Your task to perform on an android device: turn on the 12-hour format for clock Image 0: 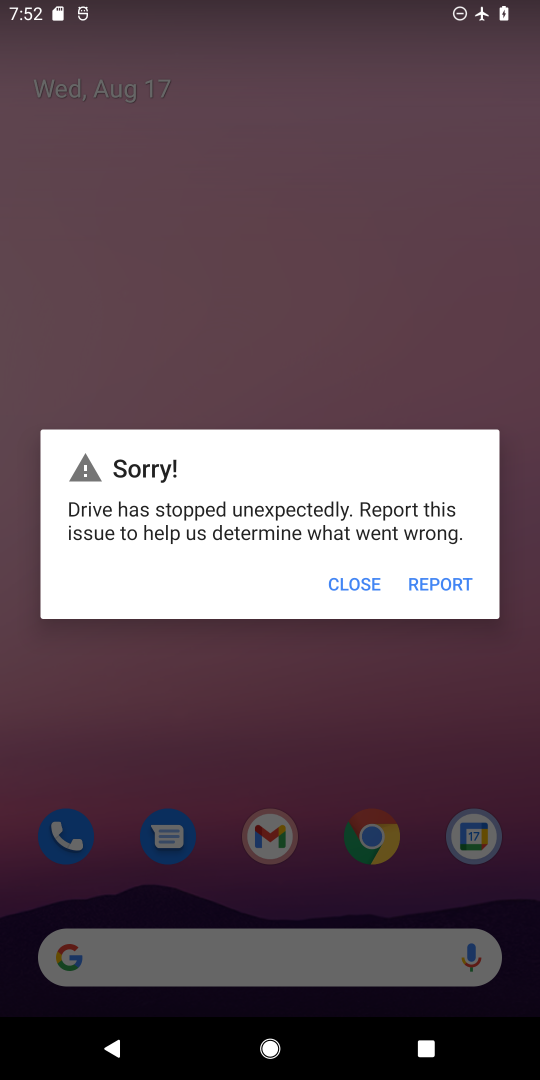
Step 0: press home button
Your task to perform on an android device: turn on the 12-hour format for clock Image 1: 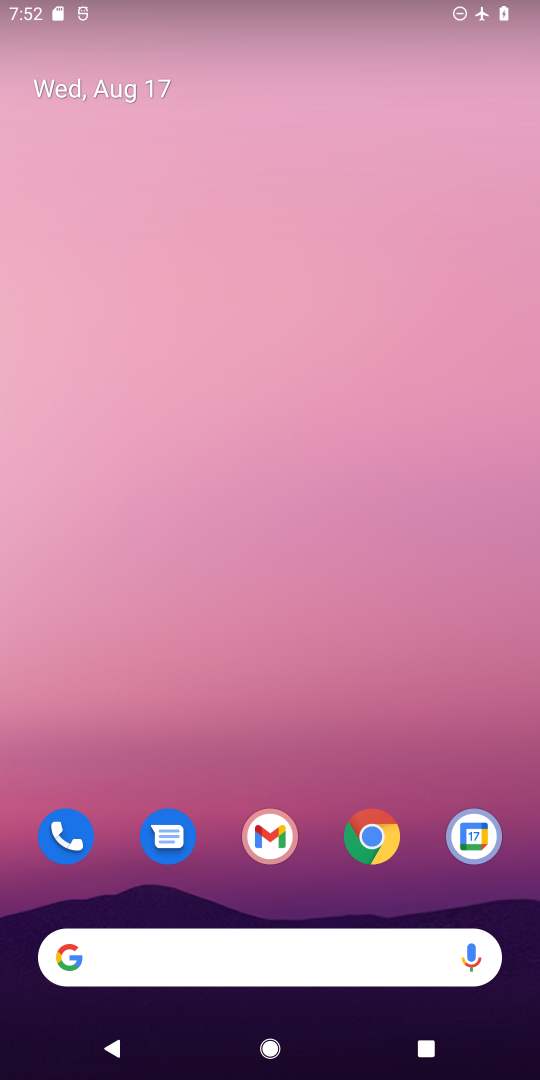
Step 1: drag from (287, 335) to (290, 280)
Your task to perform on an android device: turn on the 12-hour format for clock Image 2: 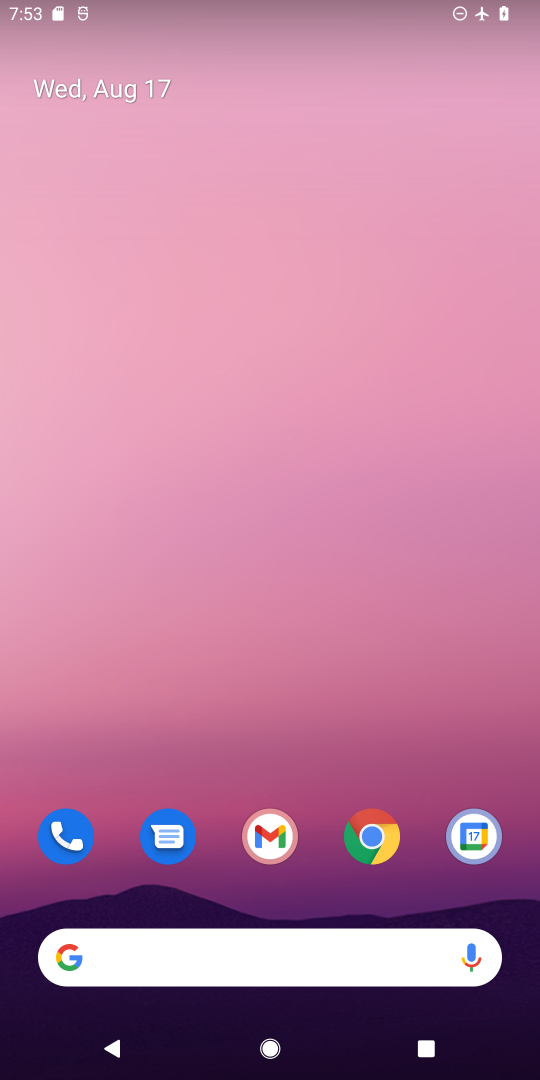
Step 2: drag from (275, 912) to (302, 206)
Your task to perform on an android device: turn on the 12-hour format for clock Image 3: 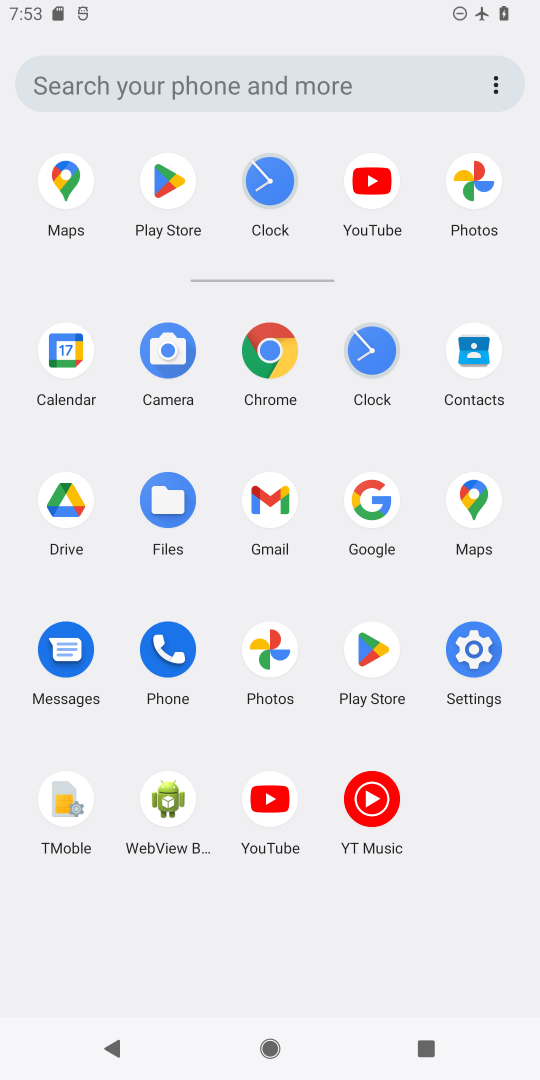
Step 3: click (358, 346)
Your task to perform on an android device: turn on the 12-hour format for clock Image 4: 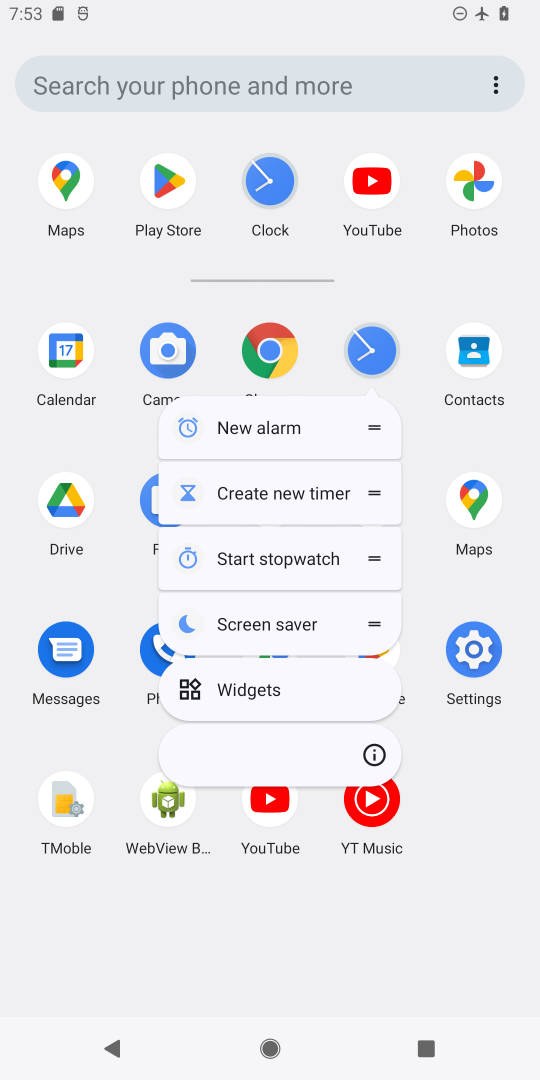
Step 4: click (369, 348)
Your task to perform on an android device: turn on the 12-hour format for clock Image 5: 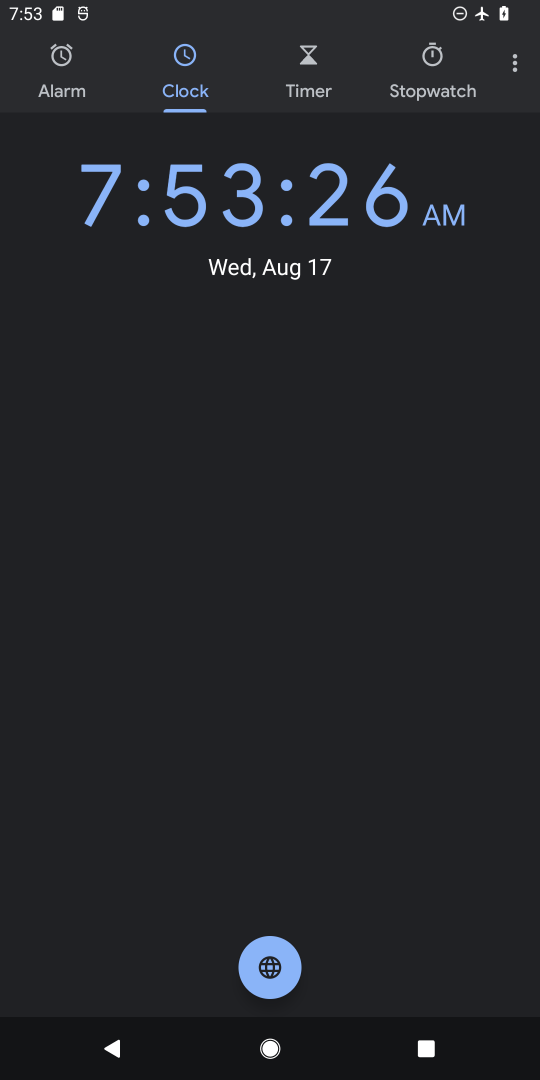
Step 5: click (517, 62)
Your task to perform on an android device: turn on the 12-hour format for clock Image 6: 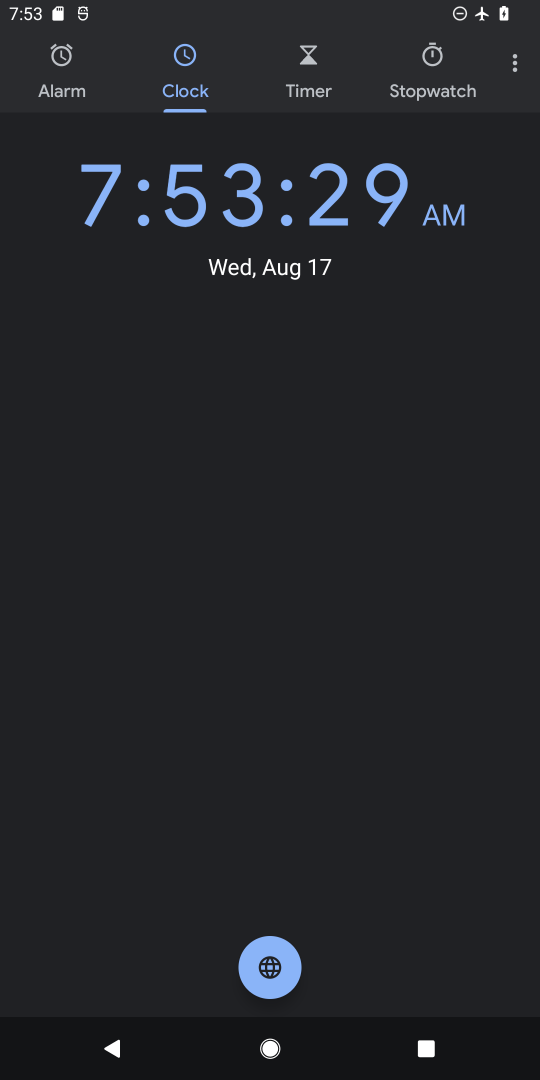
Step 6: click (532, 57)
Your task to perform on an android device: turn on the 12-hour format for clock Image 7: 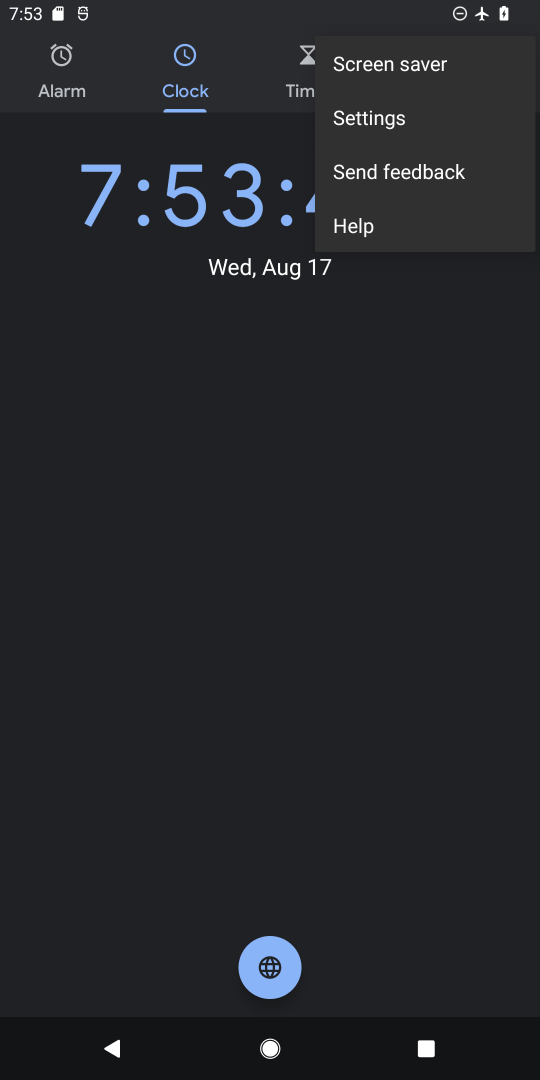
Step 7: click (366, 121)
Your task to perform on an android device: turn on the 12-hour format for clock Image 8: 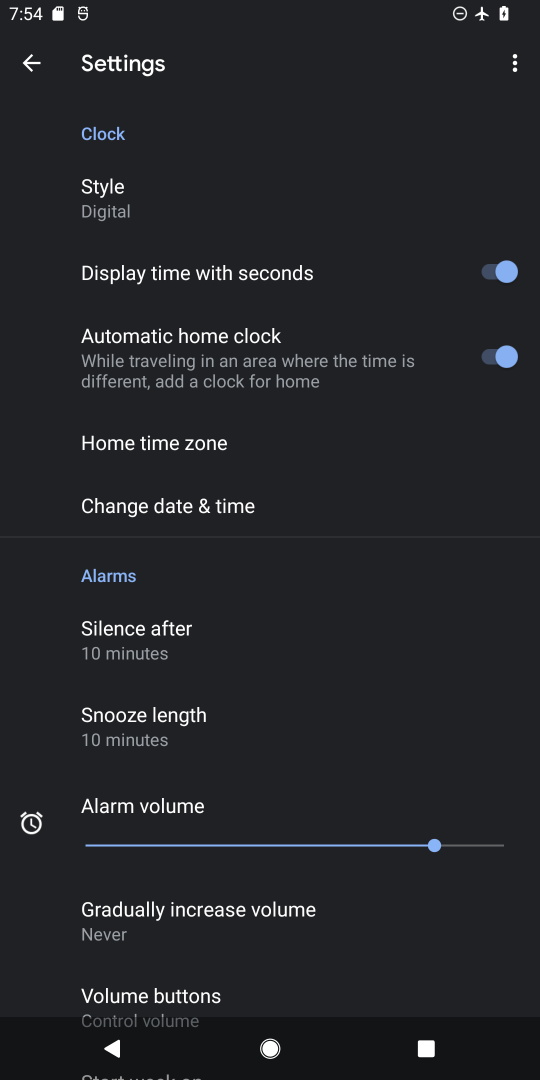
Step 8: drag from (281, 892) to (355, 515)
Your task to perform on an android device: turn on the 12-hour format for clock Image 9: 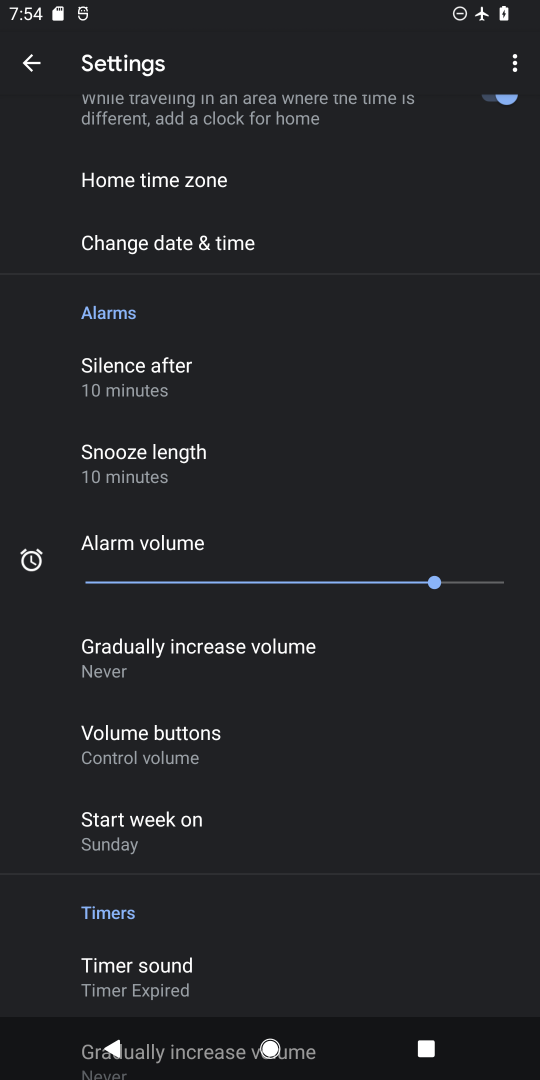
Step 9: click (276, 227)
Your task to perform on an android device: turn on the 12-hour format for clock Image 10: 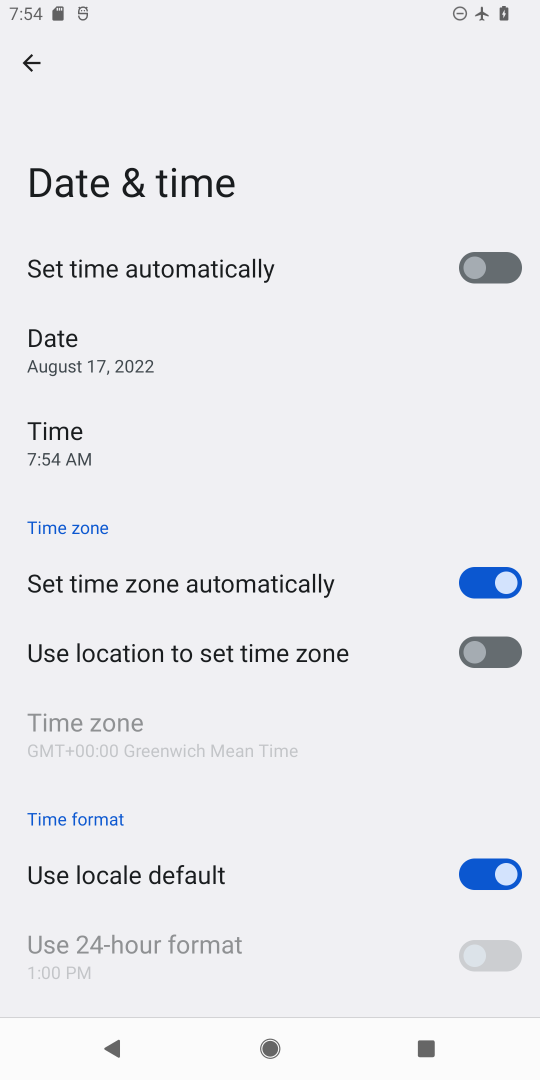
Step 10: click (478, 862)
Your task to perform on an android device: turn on the 12-hour format for clock Image 11: 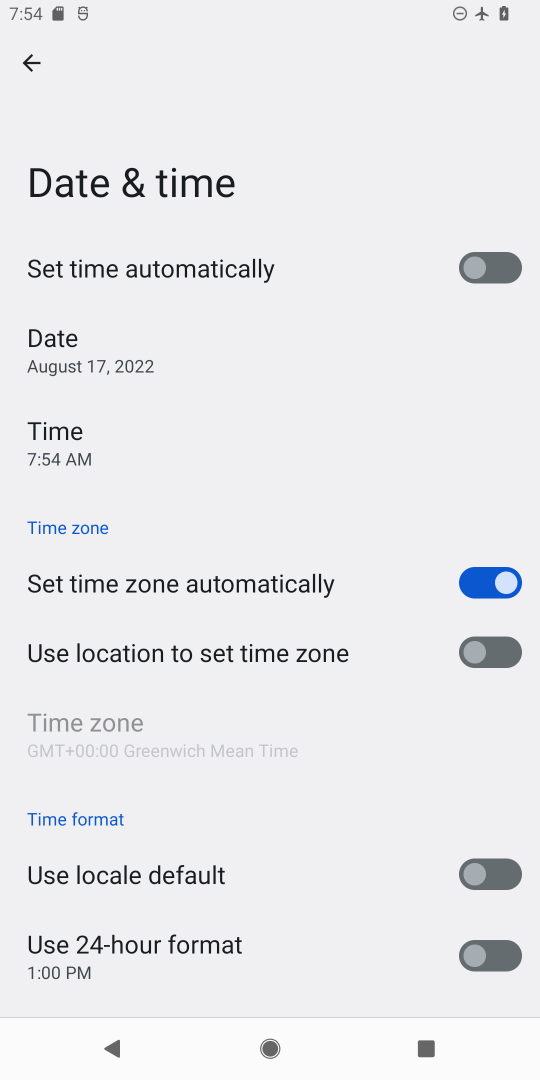
Step 11: click (493, 967)
Your task to perform on an android device: turn on the 12-hour format for clock Image 12: 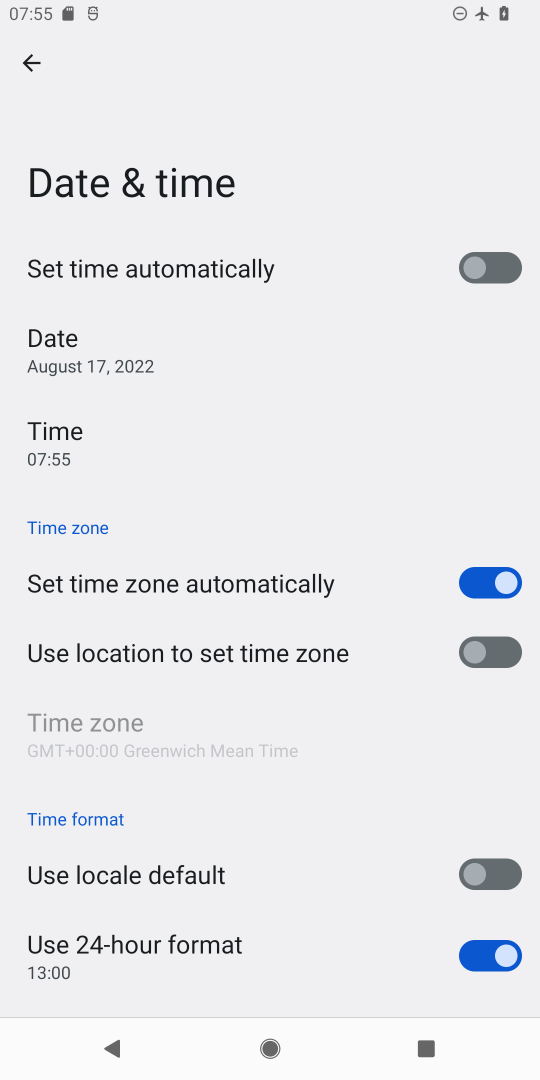
Step 12: task complete